Your task to perform on an android device: When is my next meeting? Image 0: 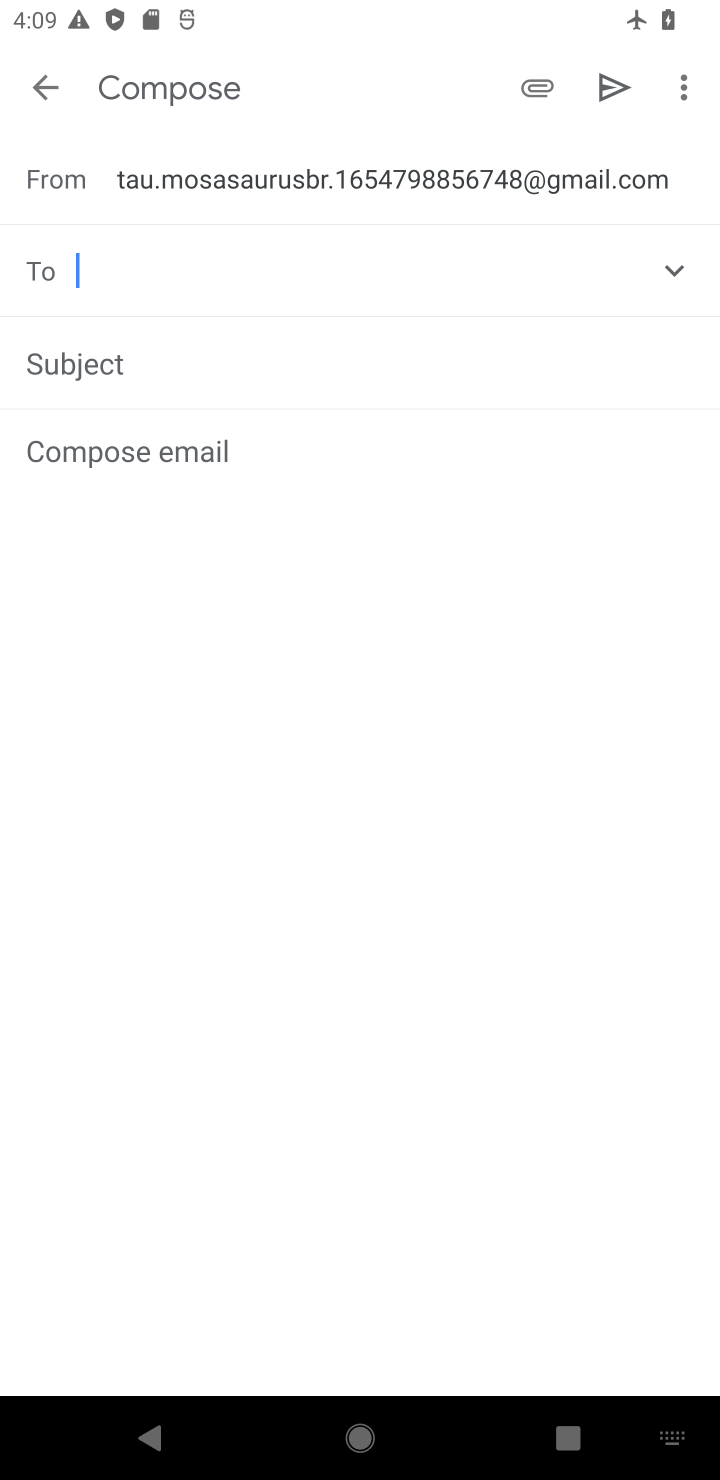
Step 0: press back button
Your task to perform on an android device: When is my next meeting? Image 1: 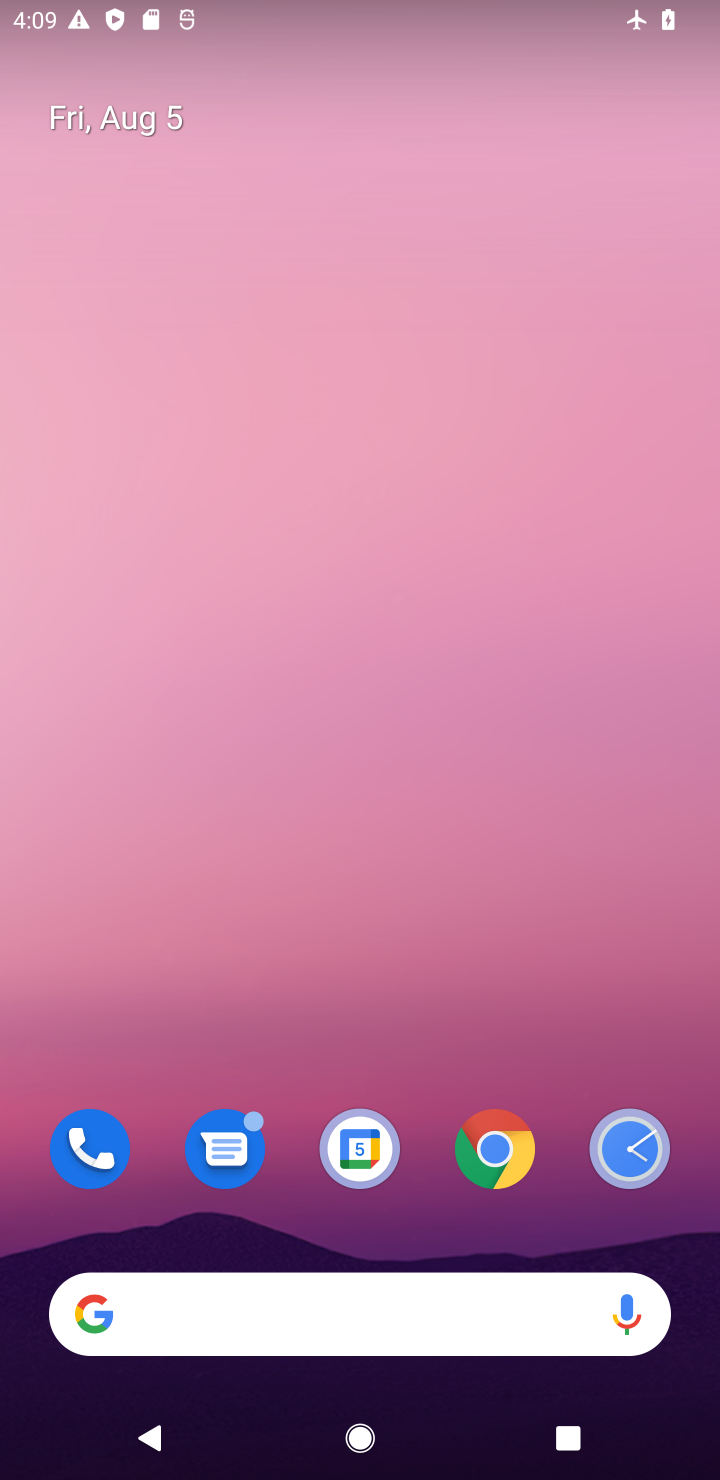
Step 1: drag from (244, 1217) to (373, 216)
Your task to perform on an android device: When is my next meeting? Image 2: 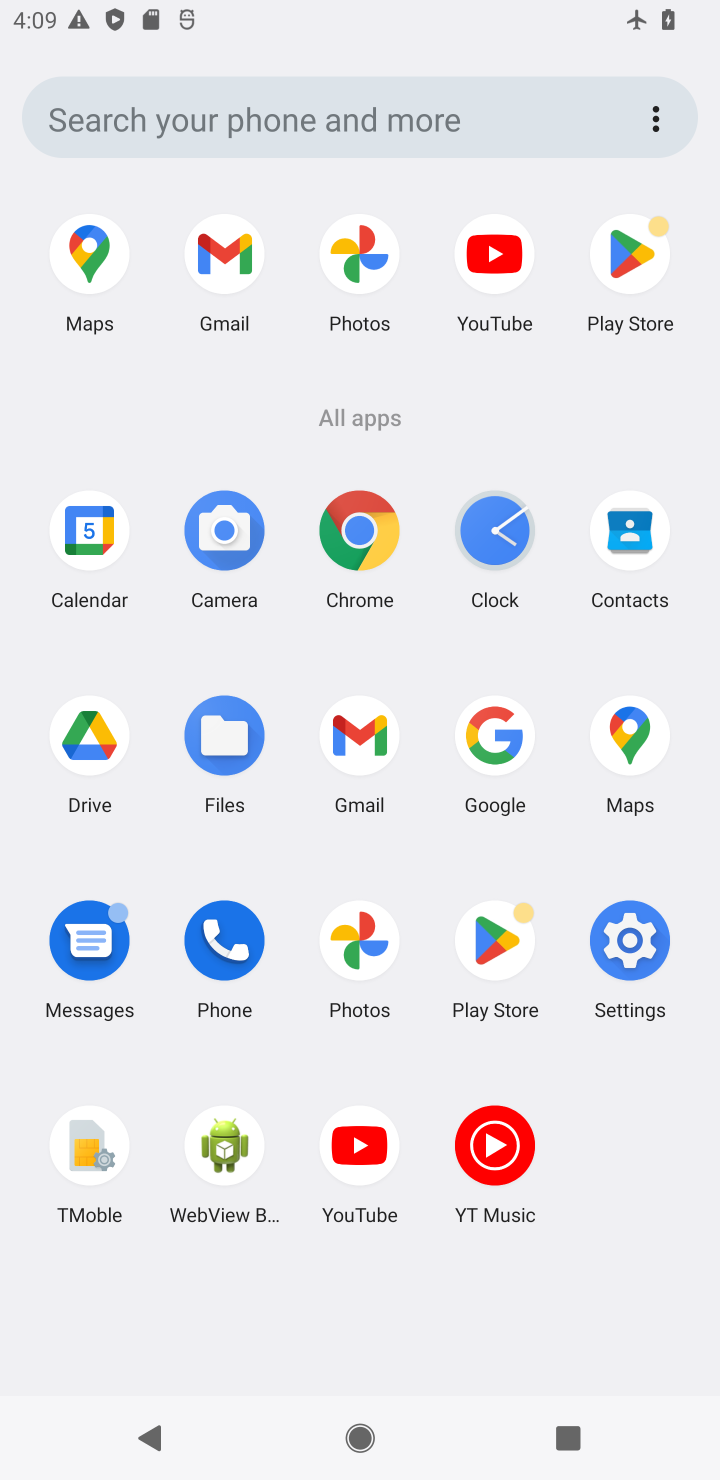
Step 2: click (110, 518)
Your task to perform on an android device: When is my next meeting? Image 3: 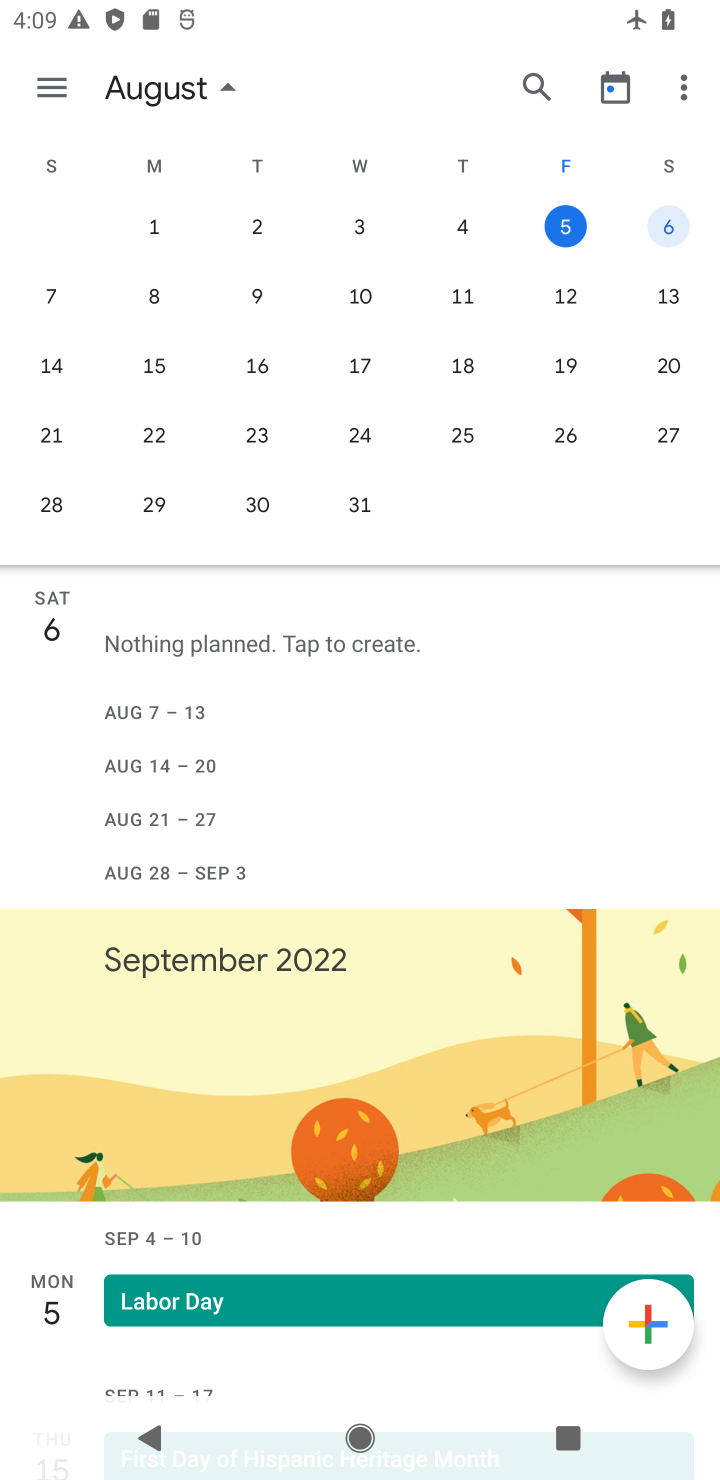
Step 3: task complete